Your task to perform on an android device: Toggle the flashlight Image 0: 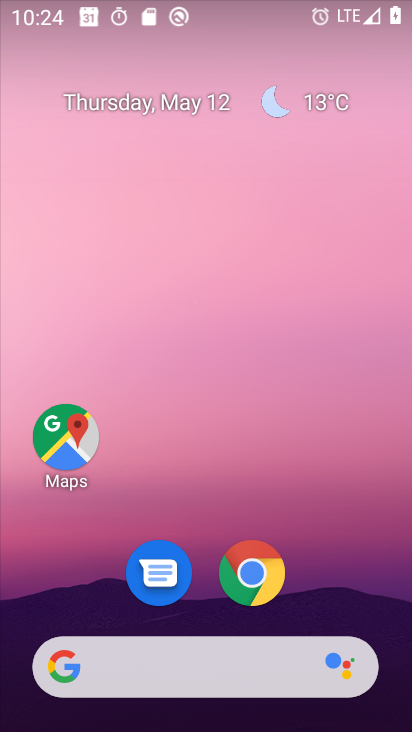
Step 0: drag from (393, 547) to (377, 226)
Your task to perform on an android device: Toggle the flashlight Image 1: 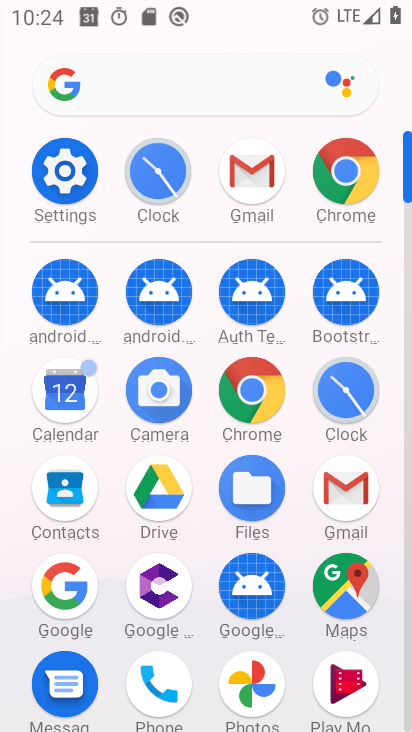
Step 1: click (72, 172)
Your task to perform on an android device: Toggle the flashlight Image 2: 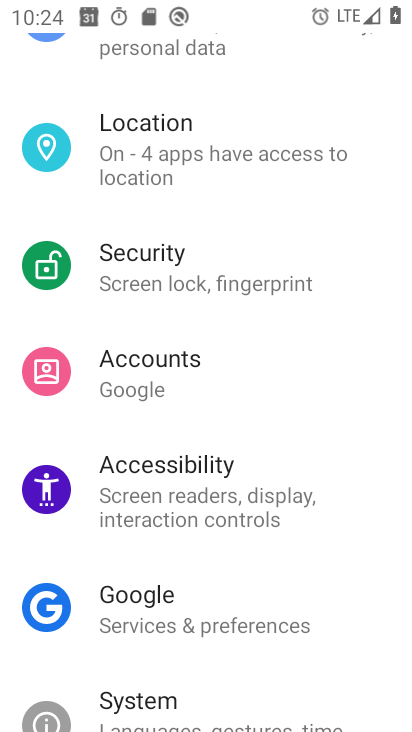
Step 2: task complete